Your task to perform on an android device: change the clock display to analog Image 0: 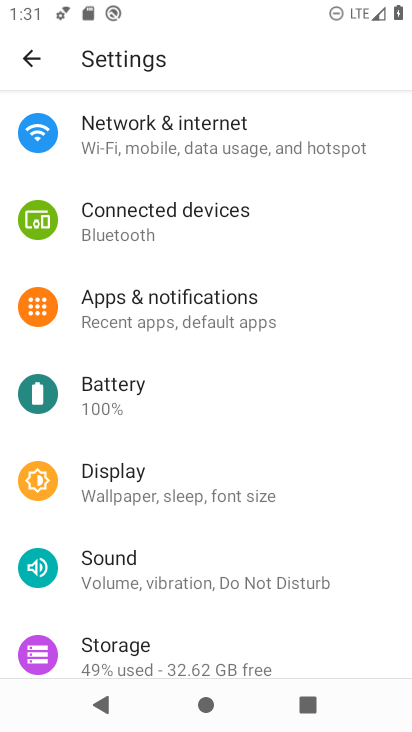
Step 0: press home button
Your task to perform on an android device: change the clock display to analog Image 1: 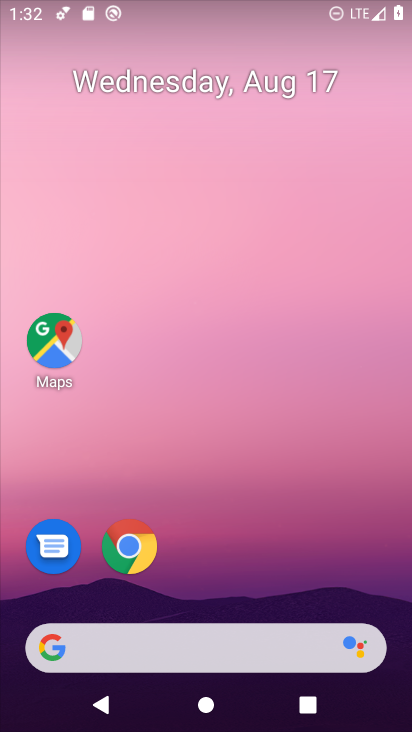
Step 1: drag from (204, 570) to (175, 125)
Your task to perform on an android device: change the clock display to analog Image 2: 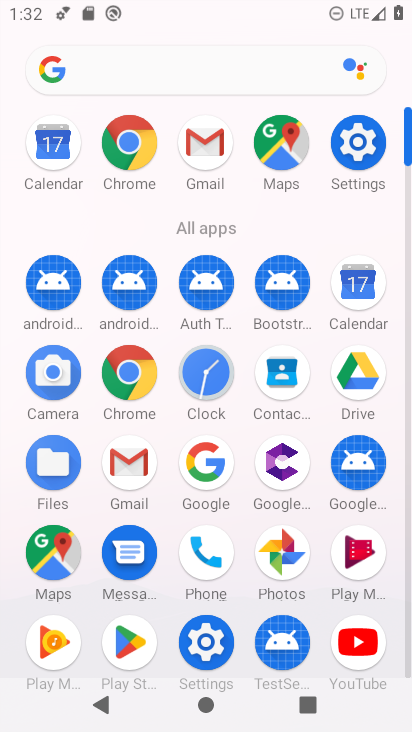
Step 2: click (206, 371)
Your task to perform on an android device: change the clock display to analog Image 3: 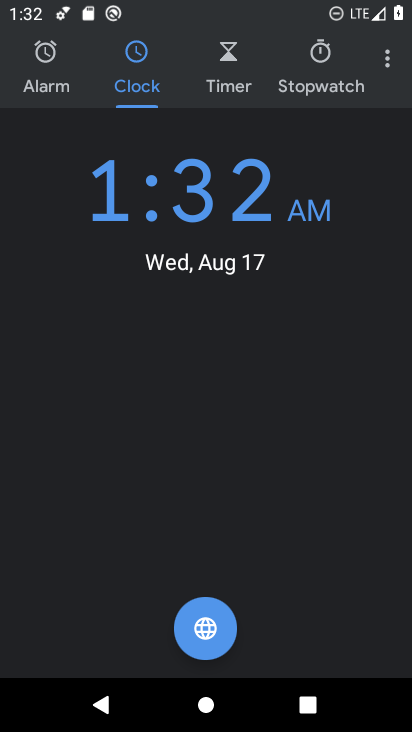
Step 3: click (391, 55)
Your task to perform on an android device: change the clock display to analog Image 4: 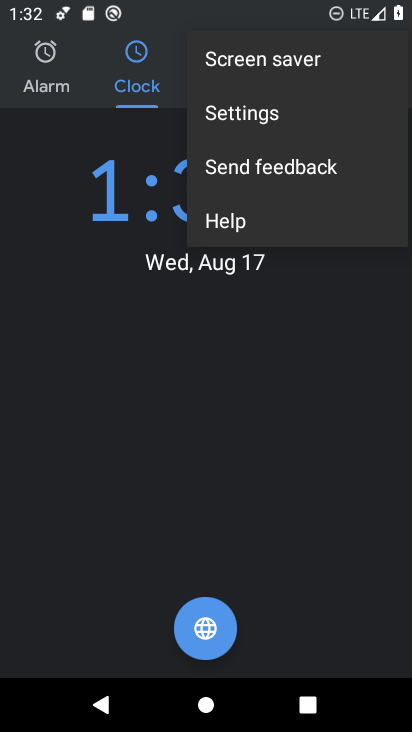
Step 4: click (273, 108)
Your task to perform on an android device: change the clock display to analog Image 5: 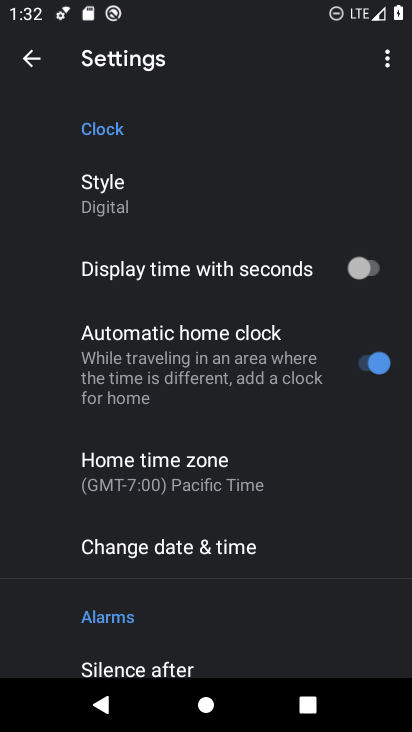
Step 5: click (114, 188)
Your task to perform on an android device: change the clock display to analog Image 6: 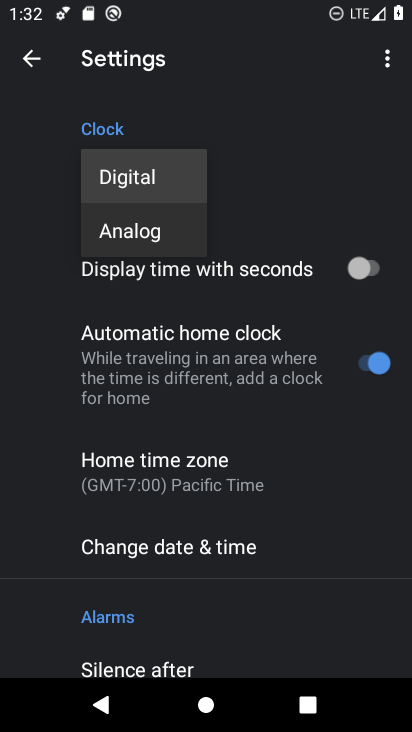
Step 6: click (130, 230)
Your task to perform on an android device: change the clock display to analog Image 7: 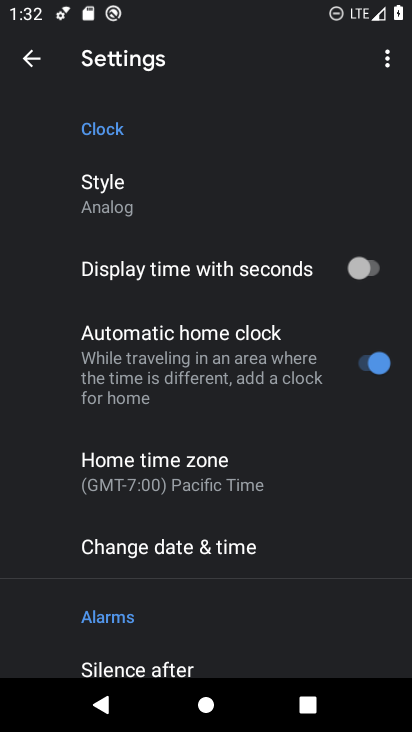
Step 7: task complete